Your task to perform on an android device: set the stopwatch Image 0: 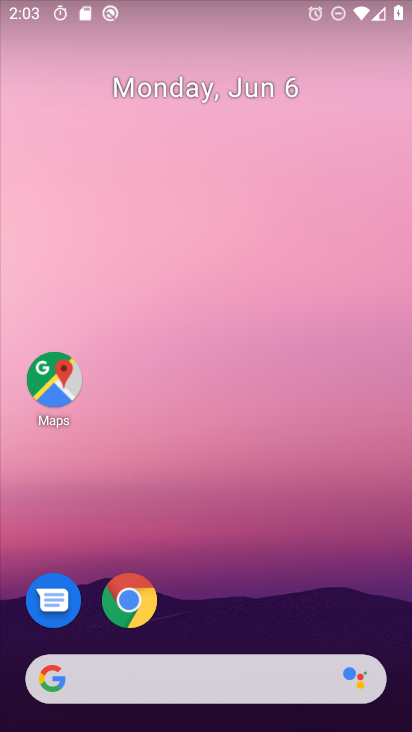
Step 0: drag from (223, 627) to (164, 154)
Your task to perform on an android device: set the stopwatch Image 1: 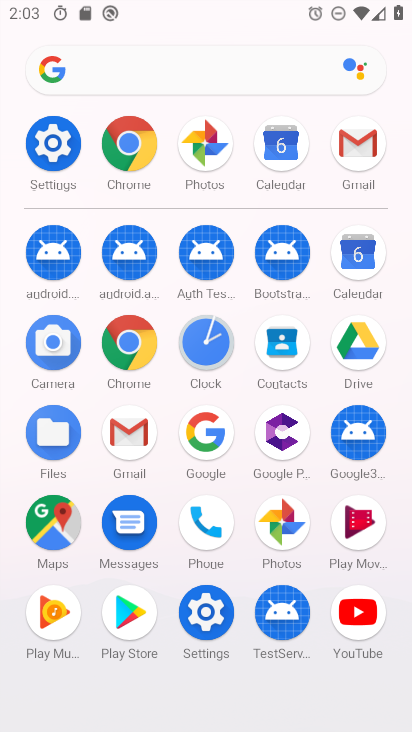
Step 1: click (211, 347)
Your task to perform on an android device: set the stopwatch Image 2: 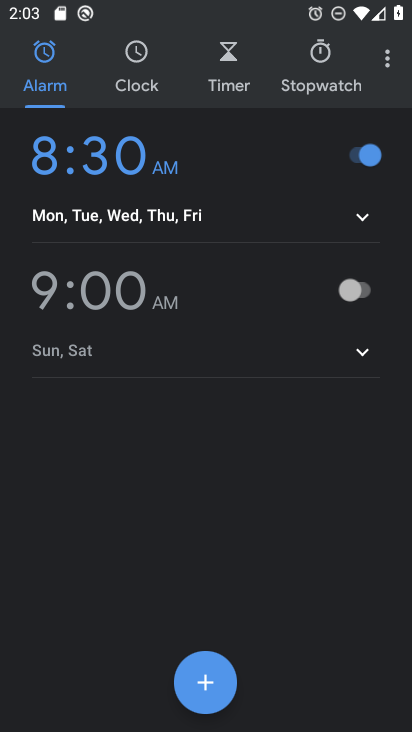
Step 2: click (314, 63)
Your task to perform on an android device: set the stopwatch Image 3: 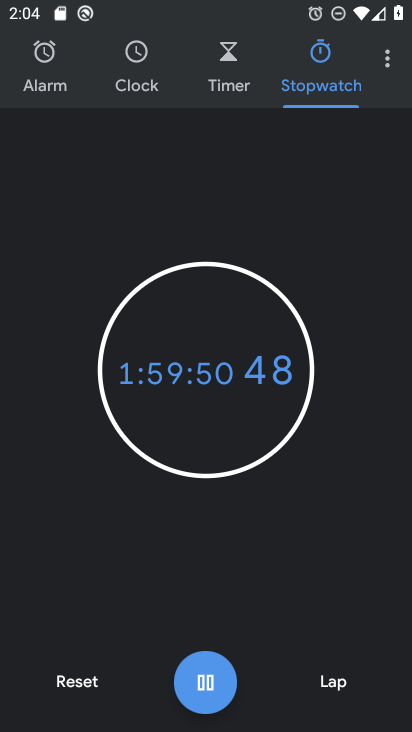
Step 3: task complete